Your task to perform on an android device: turn notification dots on Image 0: 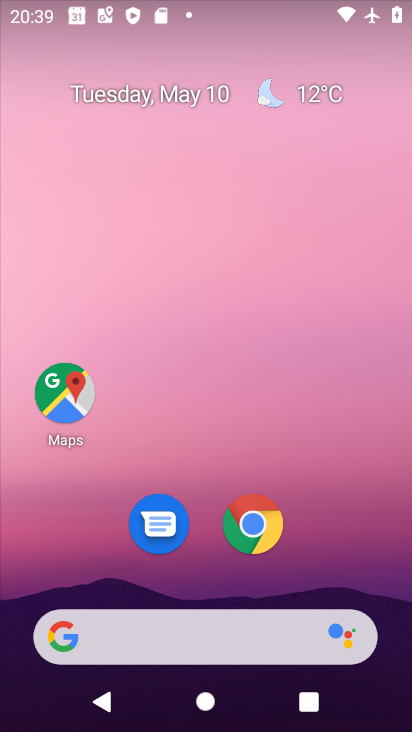
Step 0: drag from (344, 544) to (303, 43)
Your task to perform on an android device: turn notification dots on Image 1: 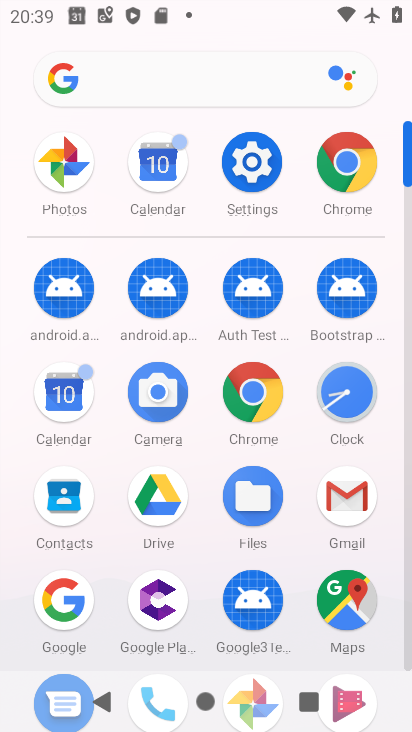
Step 1: click (249, 149)
Your task to perform on an android device: turn notification dots on Image 2: 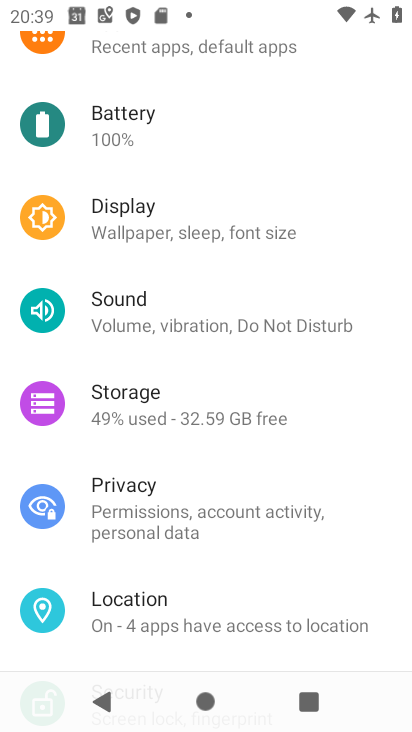
Step 2: drag from (242, 158) to (235, 627)
Your task to perform on an android device: turn notification dots on Image 3: 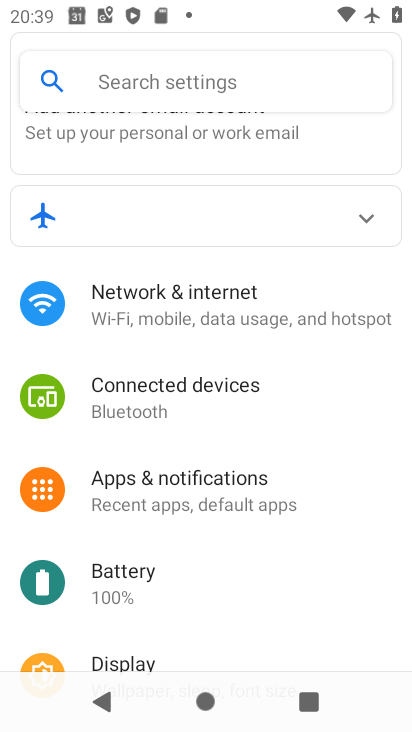
Step 3: click (240, 498)
Your task to perform on an android device: turn notification dots on Image 4: 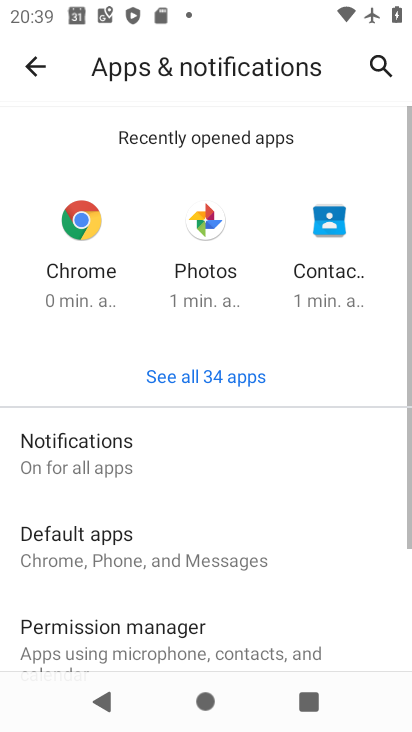
Step 4: click (86, 442)
Your task to perform on an android device: turn notification dots on Image 5: 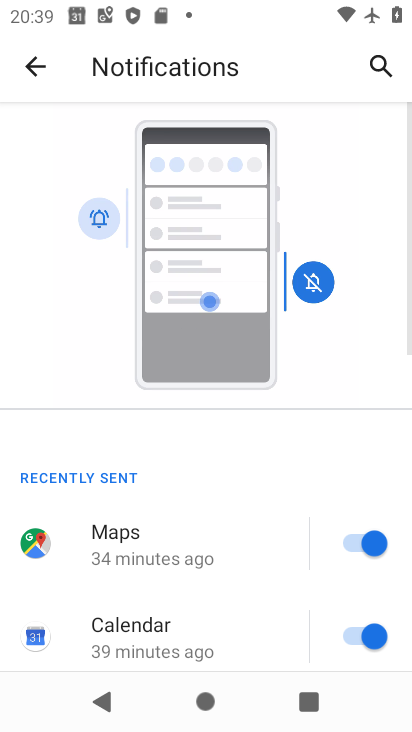
Step 5: drag from (246, 565) to (238, 31)
Your task to perform on an android device: turn notification dots on Image 6: 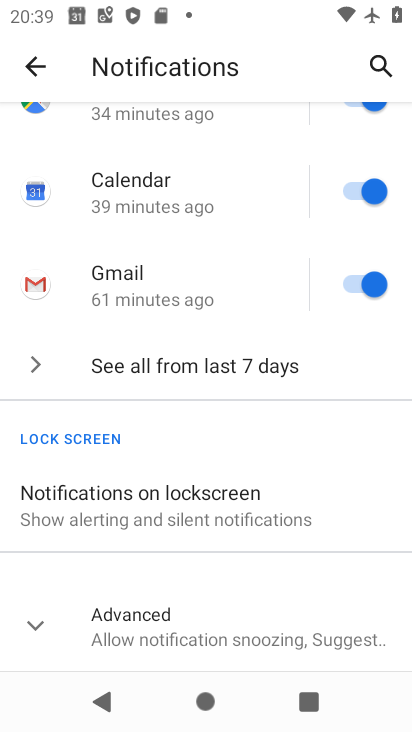
Step 6: click (37, 620)
Your task to perform on an android device: turn notification dots on Image 7: 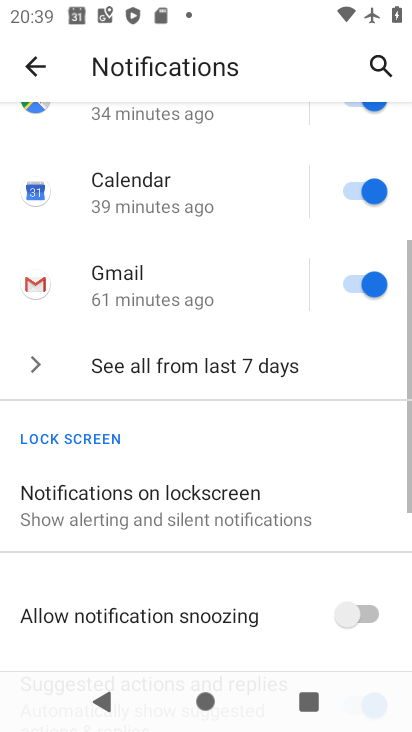
Step 7: task complete